Your task to perform on an android device: visit the assistant section in the google photos Image 0: 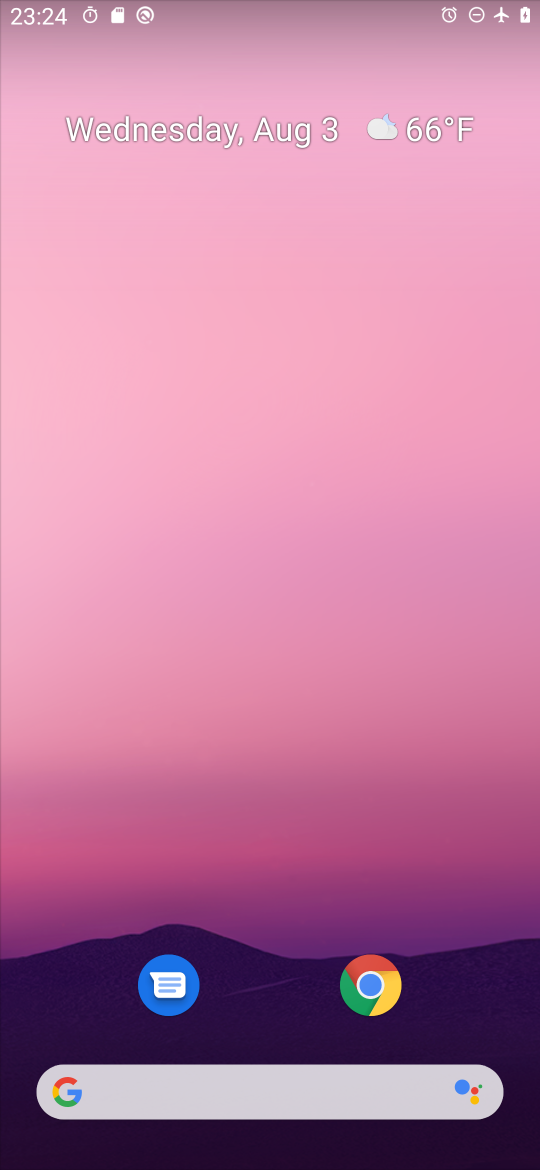
Step 0: drag from (258, 1017) to (182, 428)
Your task to perform on an android device: visit the assistant section in the google photos Image 1: 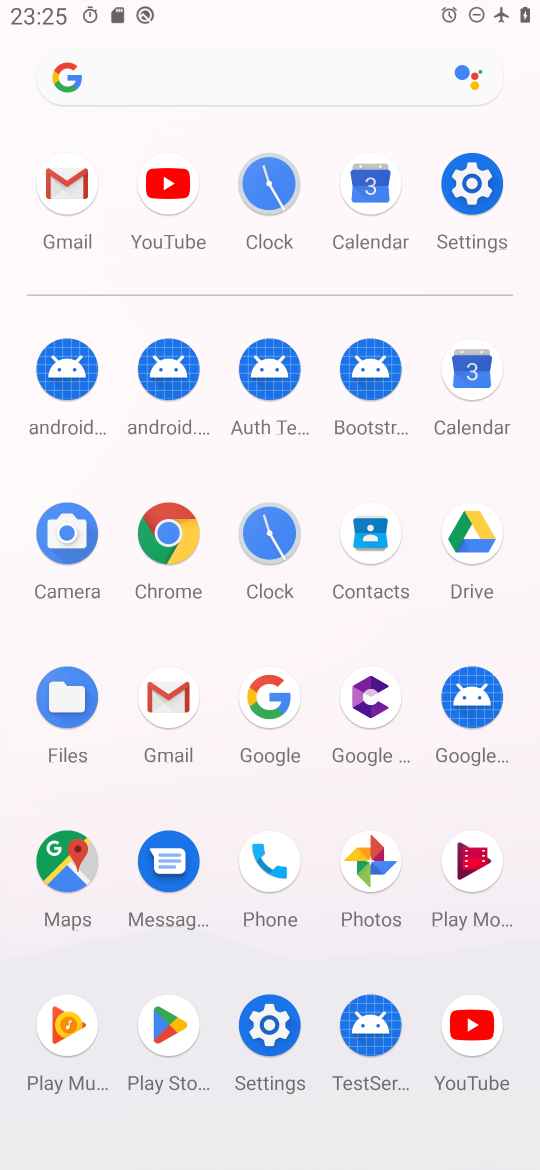
Step 1: click (384, 889)
Your task to perform on an android device: visit the assistant section in the google photos Image 2: 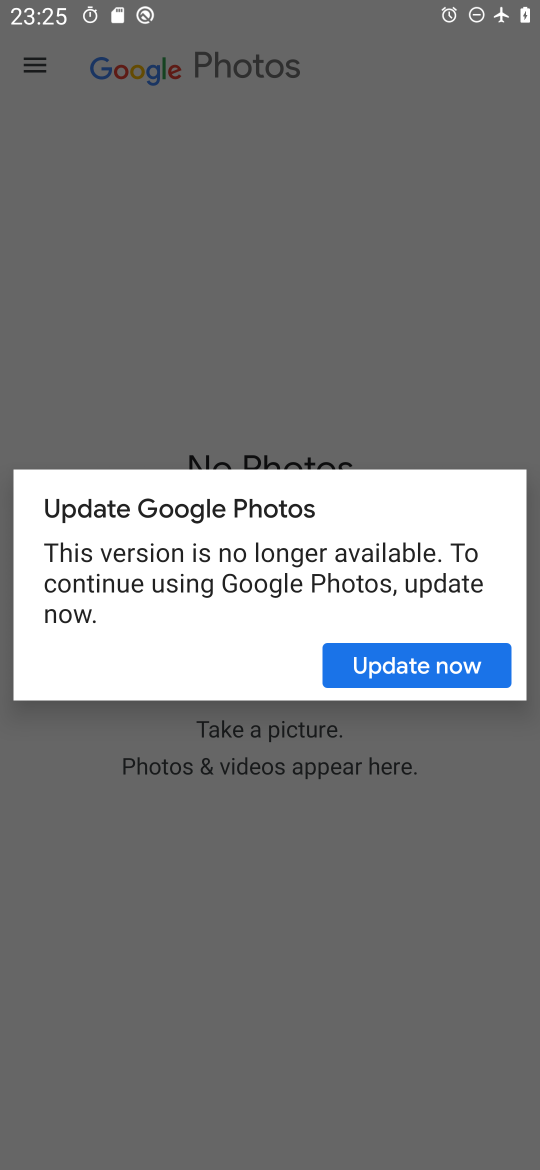
Step 2: click (358, 663)
Your task to perform on an android device: visit the assistant section in the google photos Image 3: 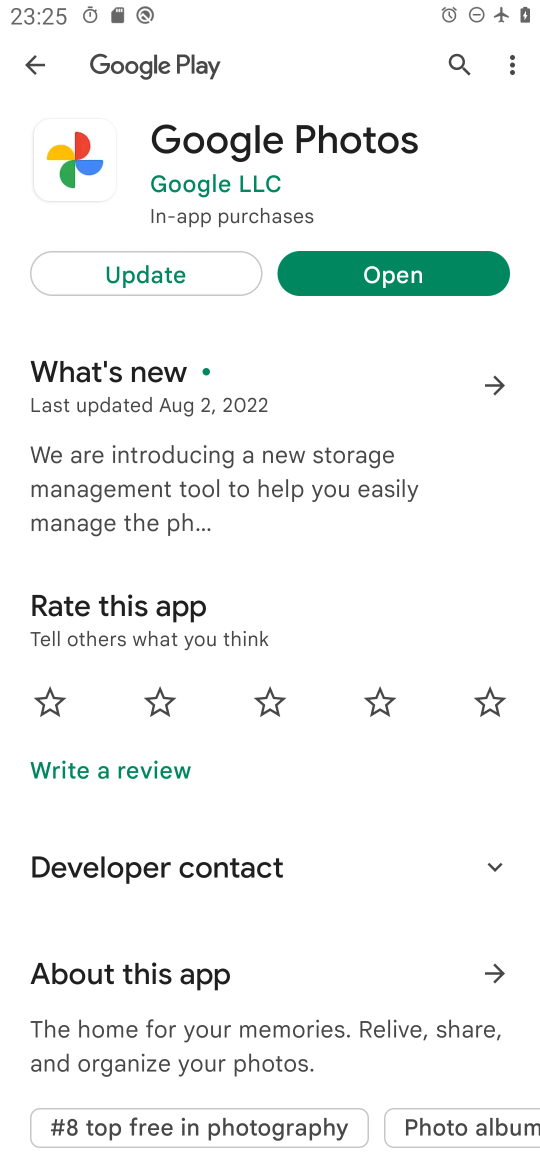
Step 3: click (330, 284)
Your task to perform on an android device: visit the assistant section in the google photos Image 4: 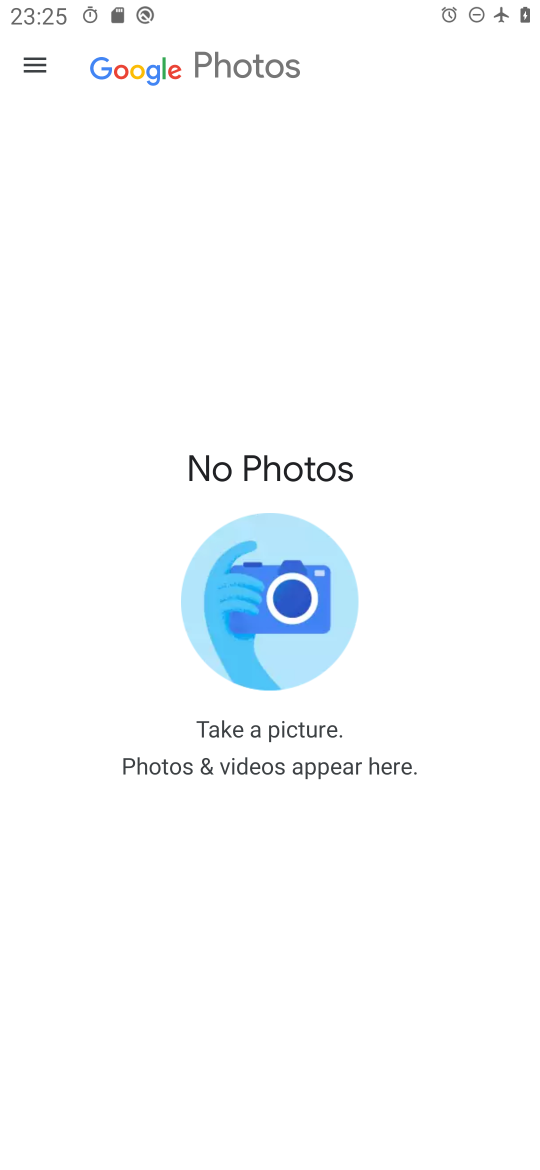
Step 4: click (32, 81)
Your task to perform on an android device: visit the assistant section in the google photos Image 5: 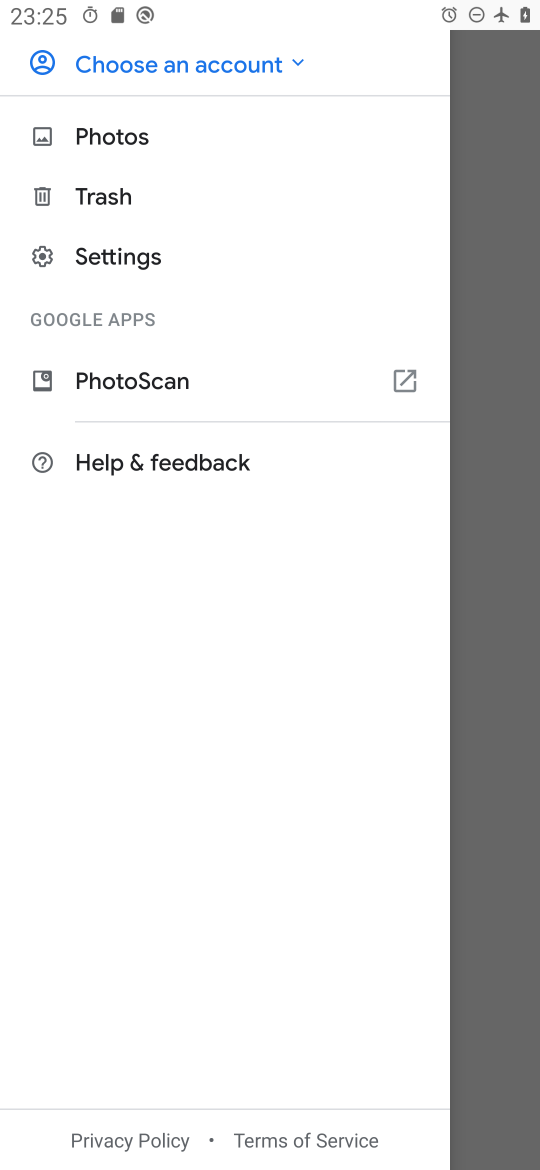
Step 5: click (143, 123)
Your task to perform on an android device: visit the assistant section in the google photos Image 6: 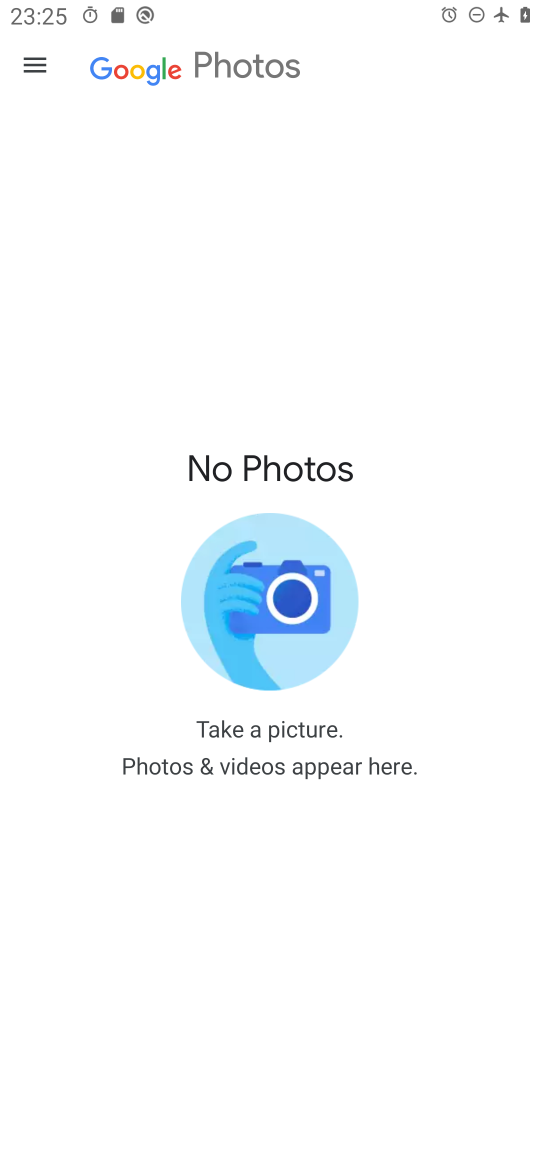
Step 6: task complete